Your task to perform on an android device: toggle improve location accuracy Image 0: 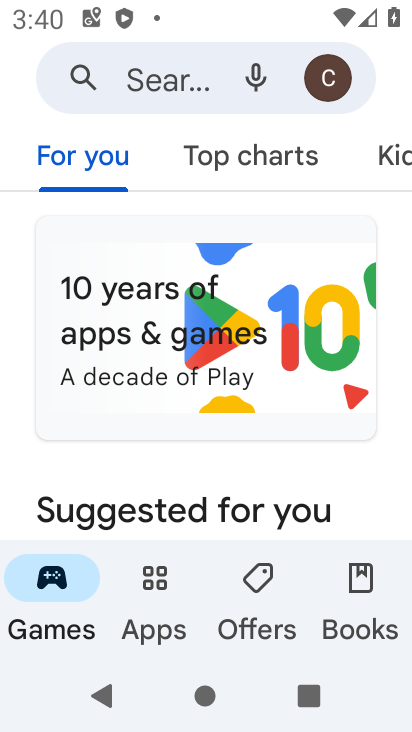
Step 0: press back button
Your task to perform on an android device: toggle improve location accuracy Image 1: 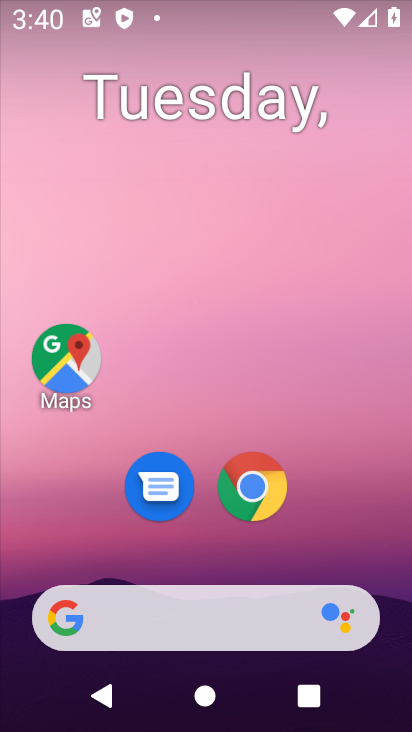
Step 1: drag from (165, 542) to (202, 1)
Your task to perform on an android device: toggle improve location accuracy Image 2: 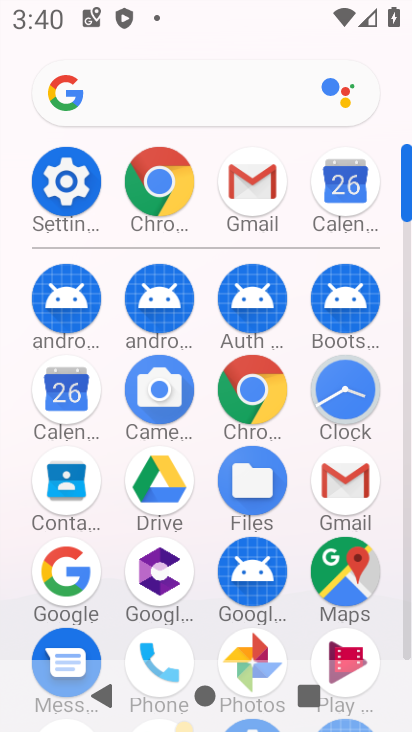
Step 2: click (63, 178)
Your task to perform on an android device: toggle improve location accuracy Image 3: 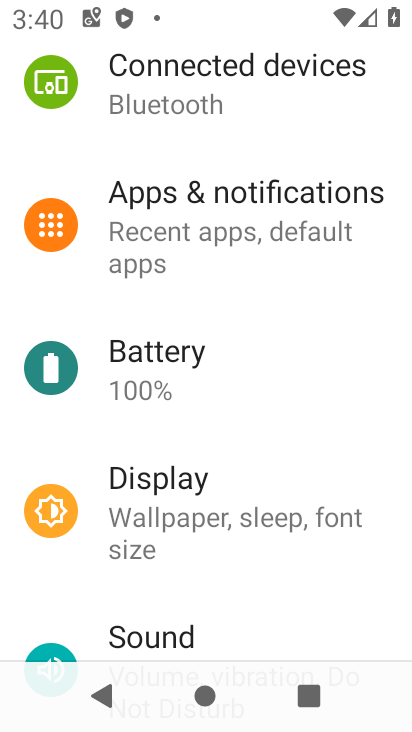
Step 3: drag from (161, 612) to (253, 70)
Your task to perform on an android device: toggle improve location accuracy Image 4: 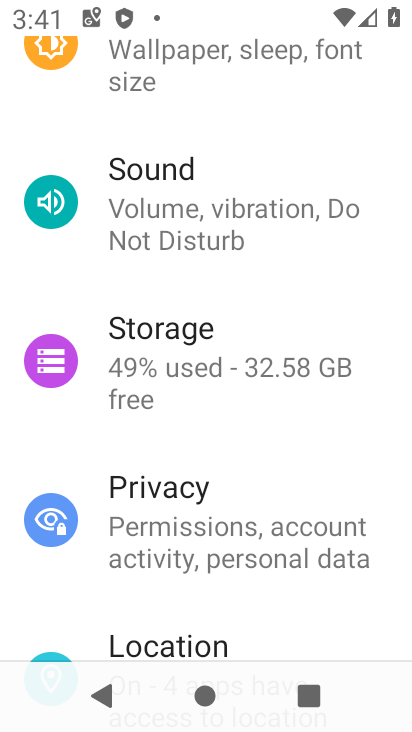
Step 4: click (186, 628)
Your task to perform on an android device: toggle improve location accuracy Image 5: 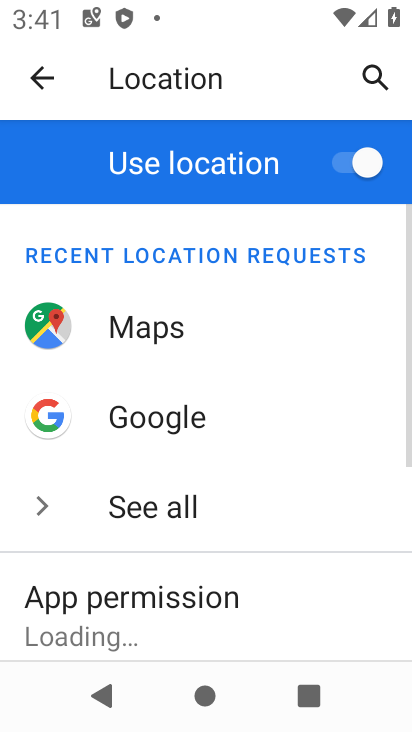
Step 5: drag from (201, 597) to (311, 104)
Your task to perform on an android device: toggle improve location accuracy Image 6: 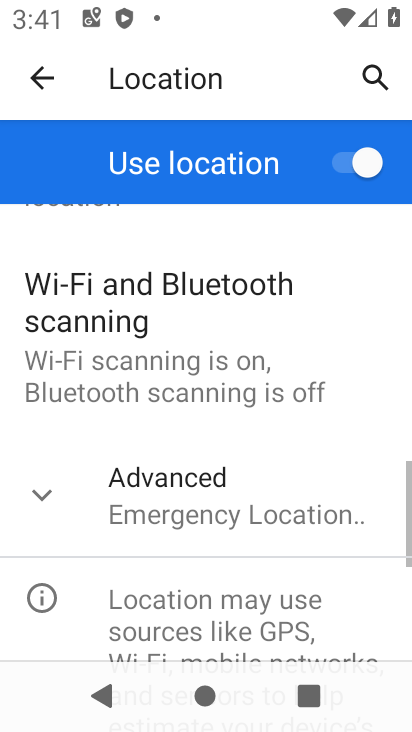
Step 6: click (162, 471)
Your task to perform on an android device: toggle improve location accuracy Image 7: 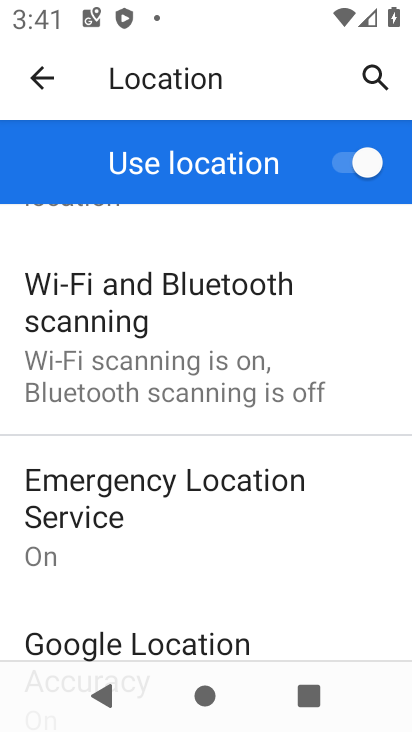
Step 7: drag from (102, 606) to (176, 297)
Your task to perform on an android device: toggle improve location accuracy Image 8: 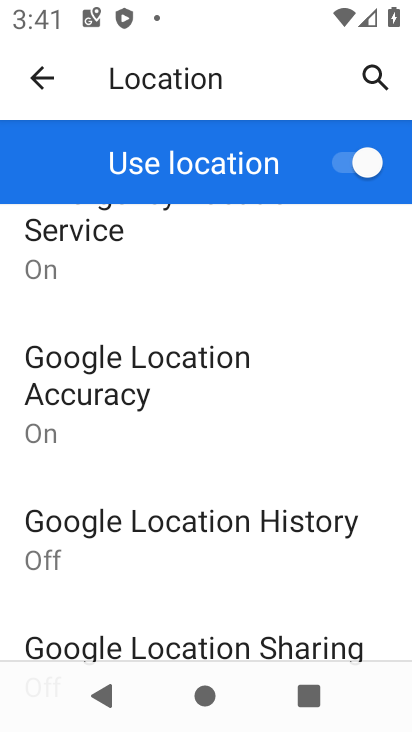
Step 8: click (171, 375)
Your task to perform on an android device: toggle improve location accuracy Image 9: 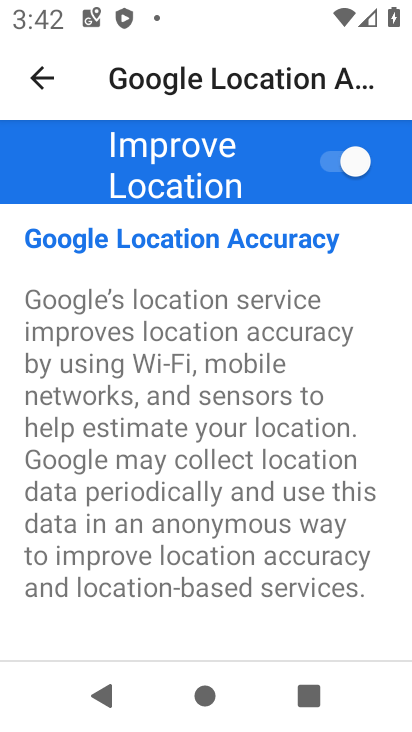
Step 9: task complete